Your task to perform on an android device: turn off picture-in-picture Image 0: 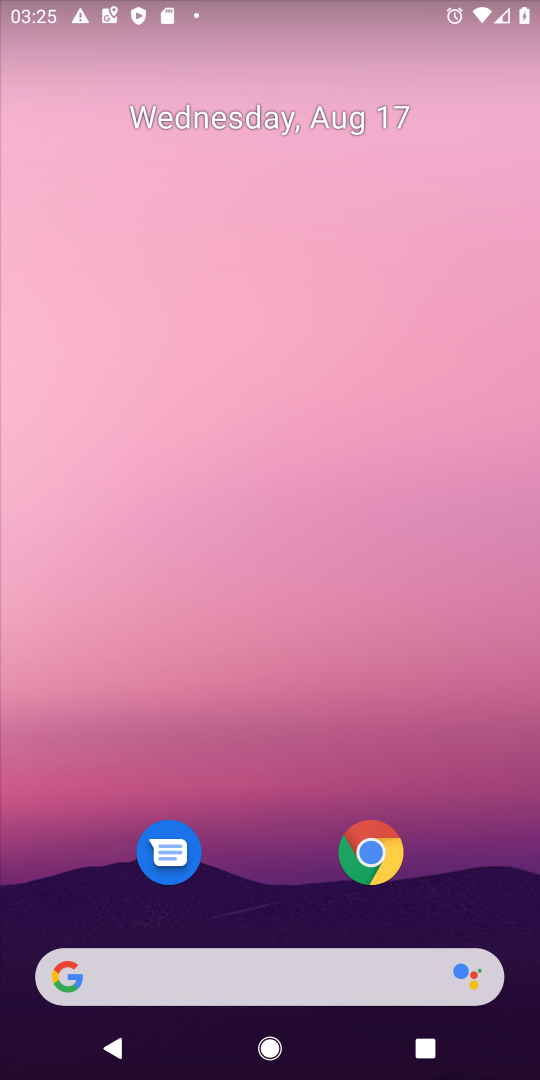
Step 0: drag from (269, 874) to (279, 0)
Your task to perform on an android device: turn off picture-in-picture Image 1: 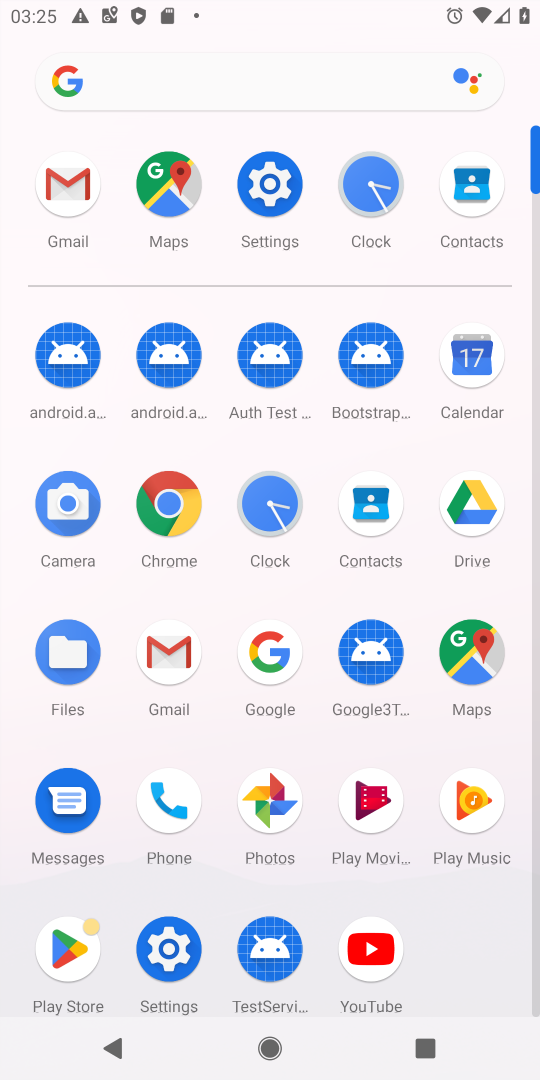
Step 1: click (173, 505)
Your task to perform on an android device: turn off picture-in-picture Image 2: 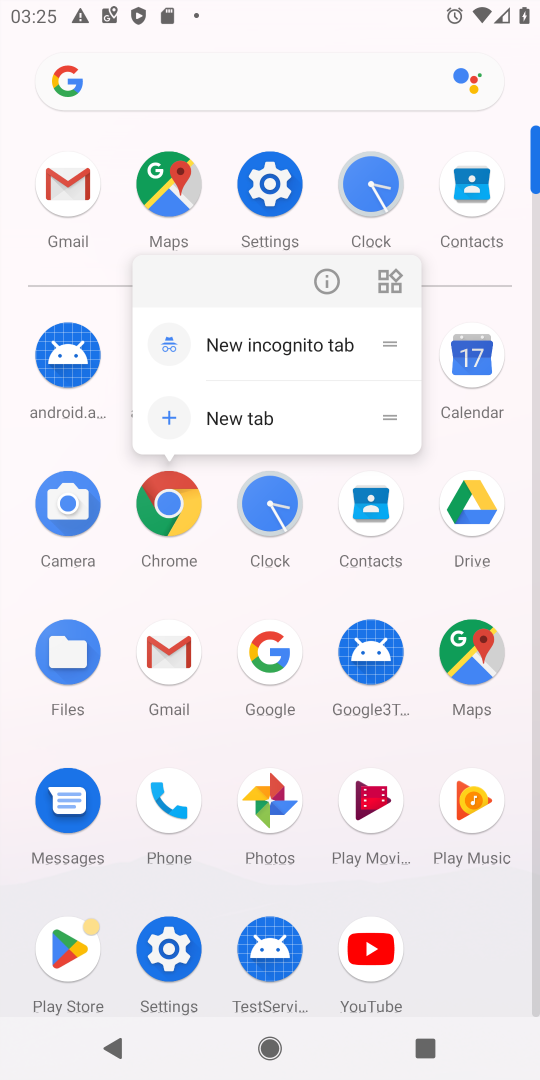
Step 2: click (326, 279)
Your task to perform on an android device: turn off picture-in-picture Image 3: 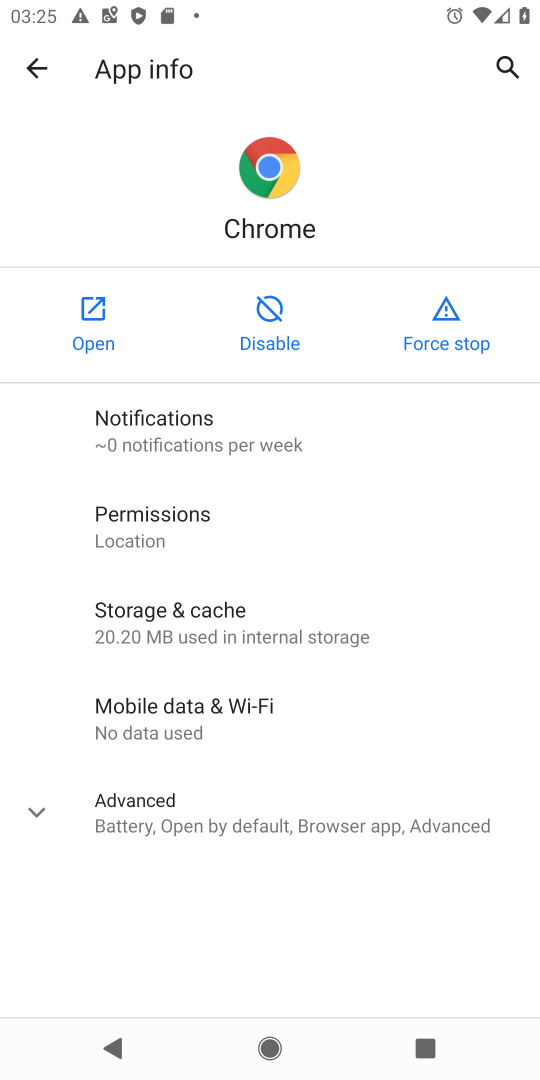
Step 3: click (248, 827)
Your task to perform on an android device: turn off picture-in-picture Image 4: 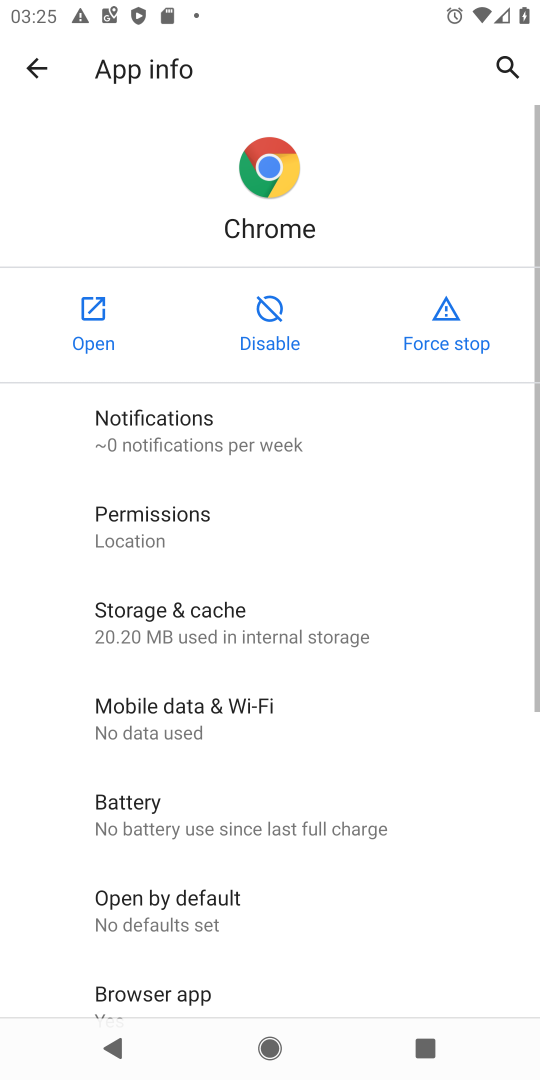
Step 4: drag from (431, 602) to (460, 225)
Your task to perform on an android device: turn off picture-in-picture Image 5: 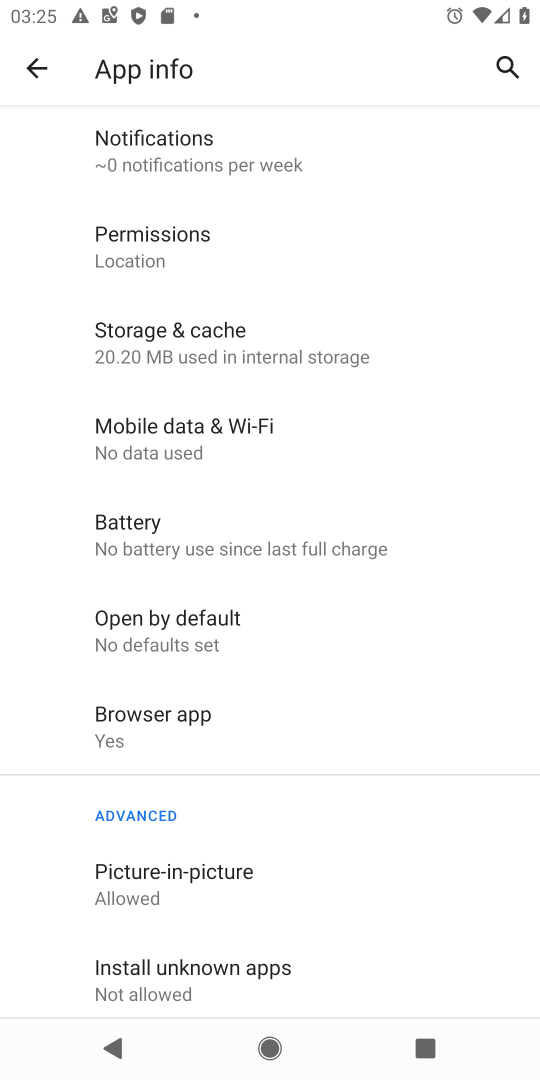
Step 5: click (218, 888)
Your task to perform on an android device: turn off picture-in-picture Image 6: 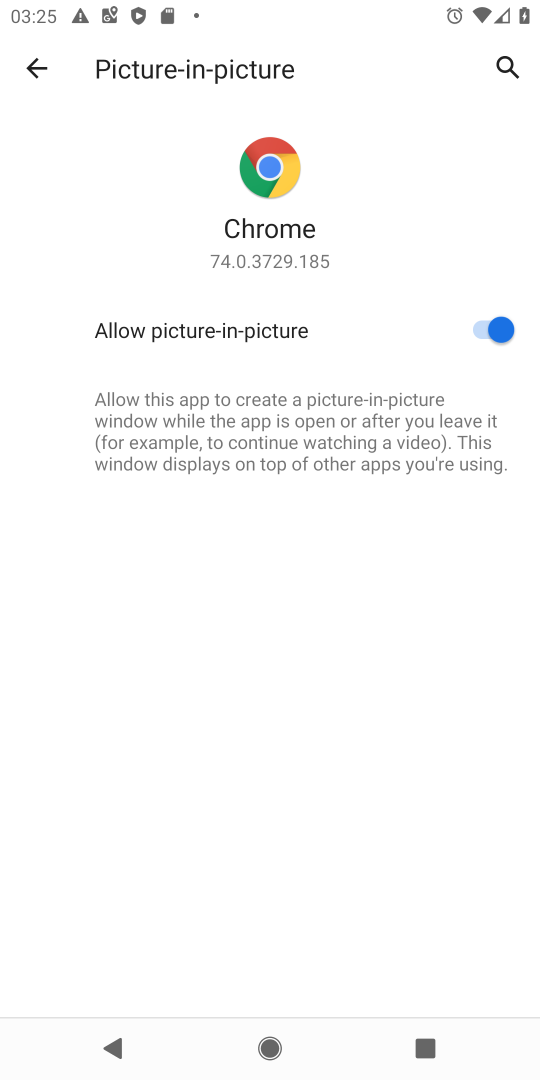
Step 6: click (466, 332)
Your task to perform on an android device: turn off picture-in-picture Image 7: 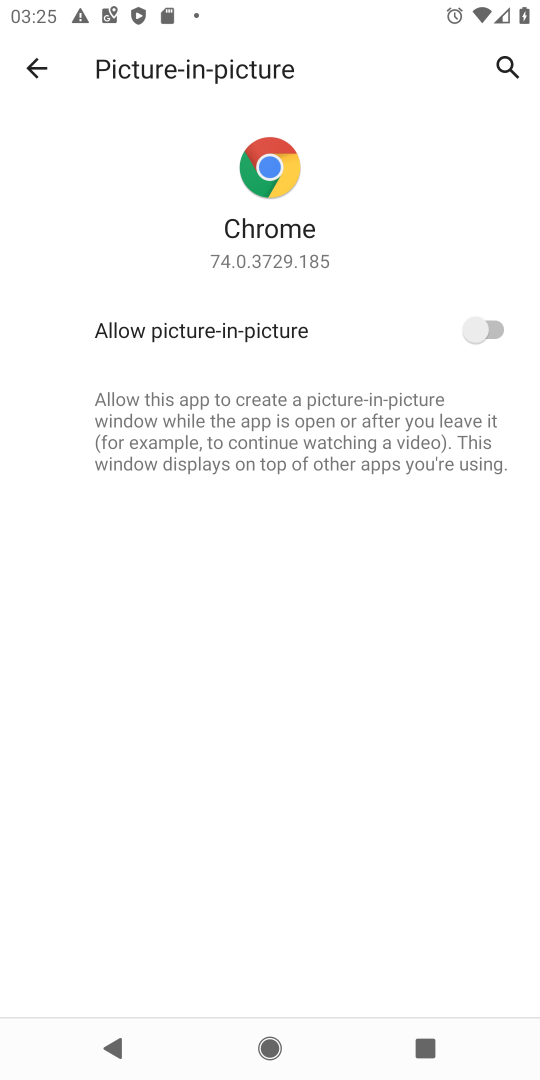
Step 7: task complete